Your task to perform on an android device: Find coffee shops on Maps Image 0: 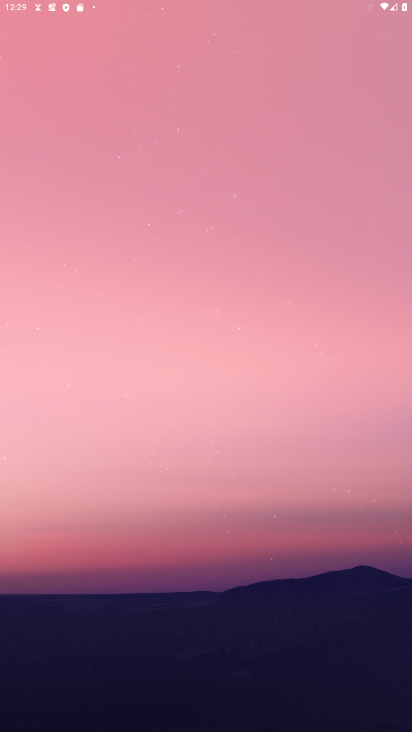
Step 0: press home button
Your task to perform on an android device: Find coffee shops on Maps Image 1: 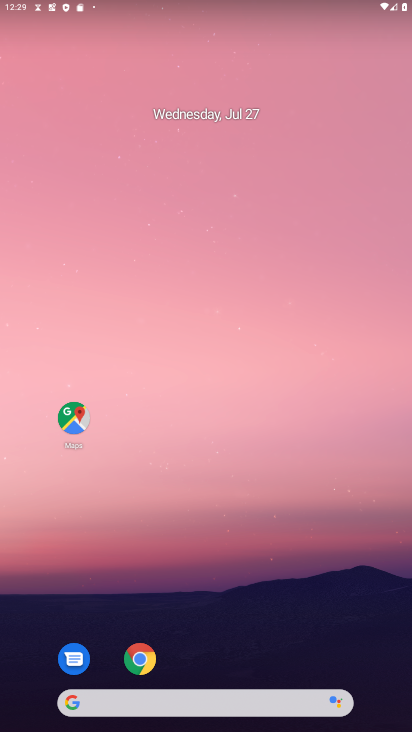
Step 1: click (75, 412)
Your task to perform on an android device: Find coffee shops on Maps Image 2: 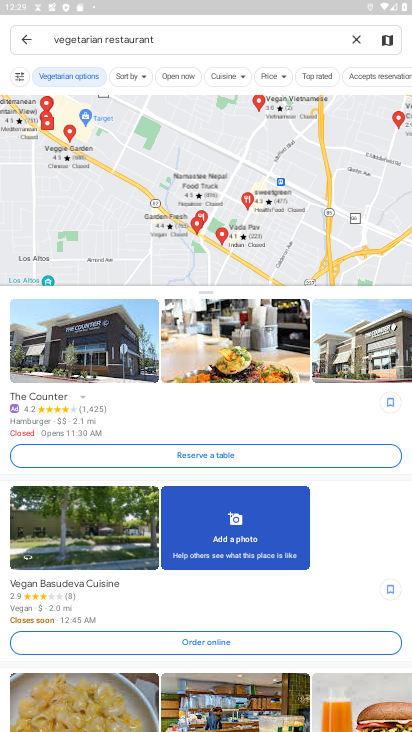
Step 2: click (357, 38)
Your task to perform on an android device: Find coffee shops on Maps Image 3: 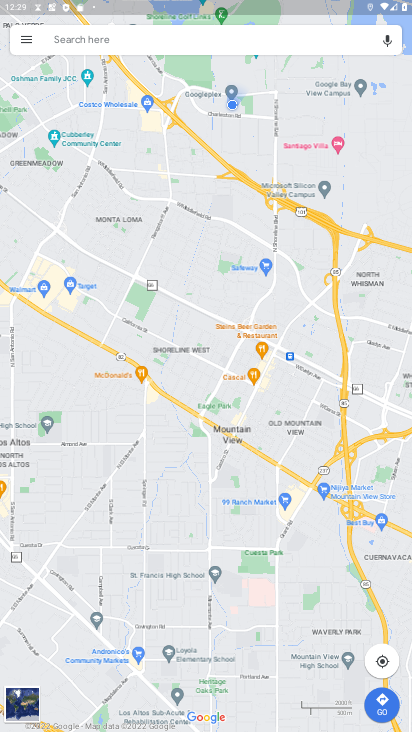
Step 3: click (115, 39)
Your task to perform on an android device: Find coffee shops on Maps Image 4: 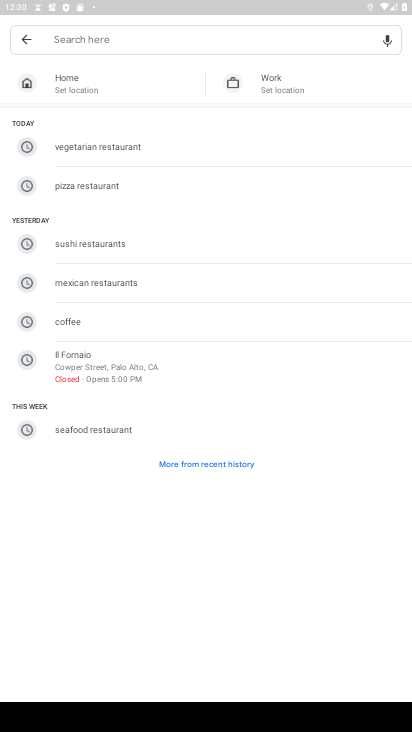
Step 4: click (87, 327)
Your task to perform on an android device: Find coffee shops on Maps Image 5: 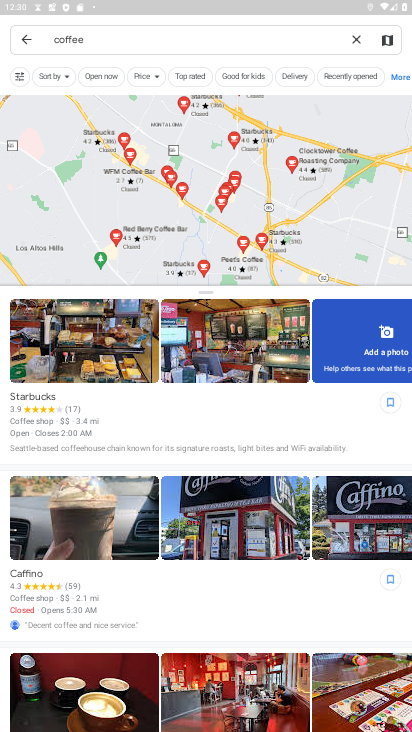
Step 5: task complete